Your task to perform on an android device: choose inbox layout in the gmail app Image 0: 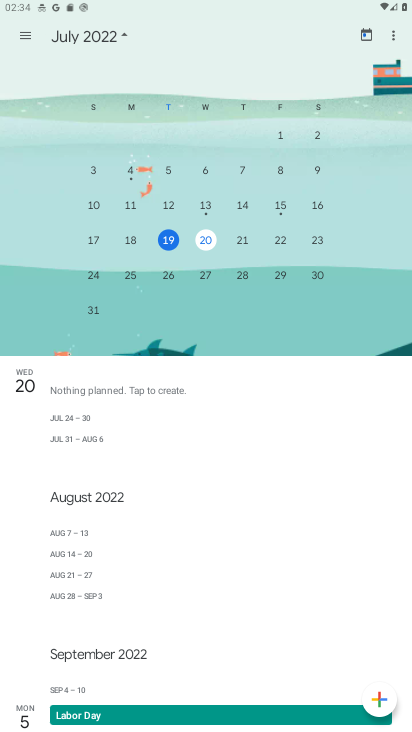
Step 0: press home button
Your task to perform on an android device: choose inbox layout in the gmail app Image 1: 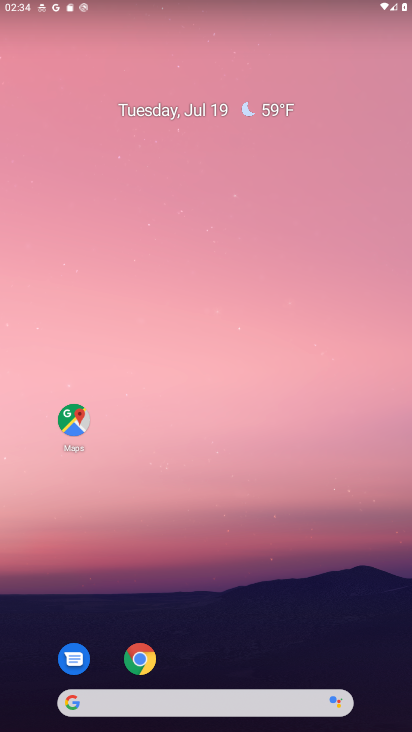
Step 1: drag from (185, 523) to (232, 219)
Your task to perform on an android device: choose inbox layout in the gmail app Image 2: 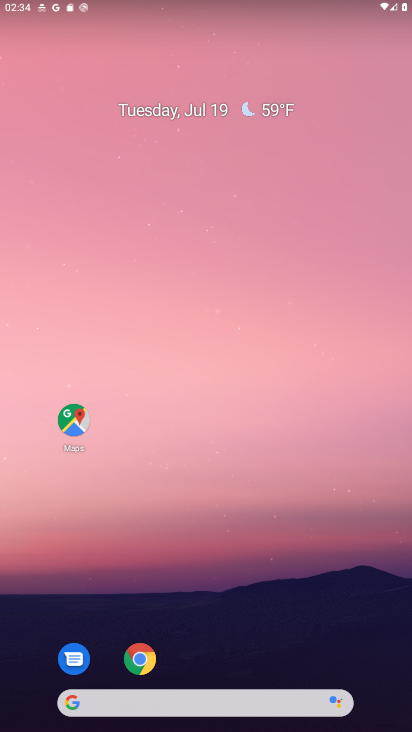
Step 2: drag from (263, 674) to (237, 332)
Your task to perform on an android device: choose inbox layout in the gmail app Image 3: 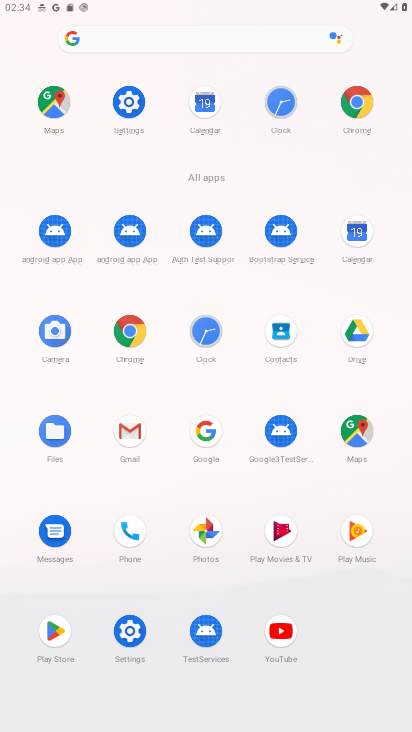
Step 3: click (131, 430)
Your task to perform on an android device: choose inbox layout in the gmail app Image 4: 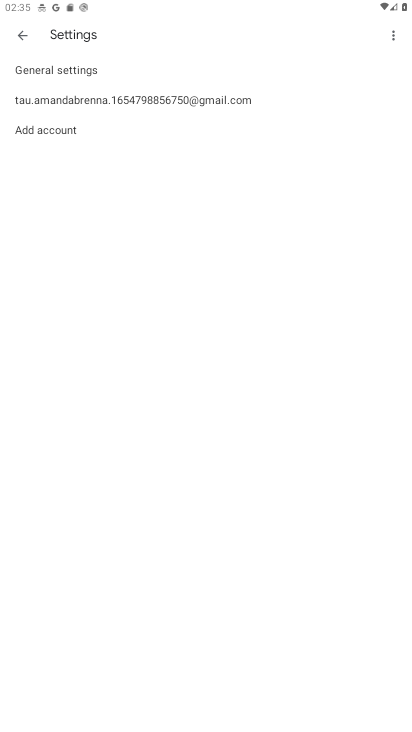
Step 4: click (67, 96)
Your task to perform on an android device: choose inbox layout in the gmail app Image 5: 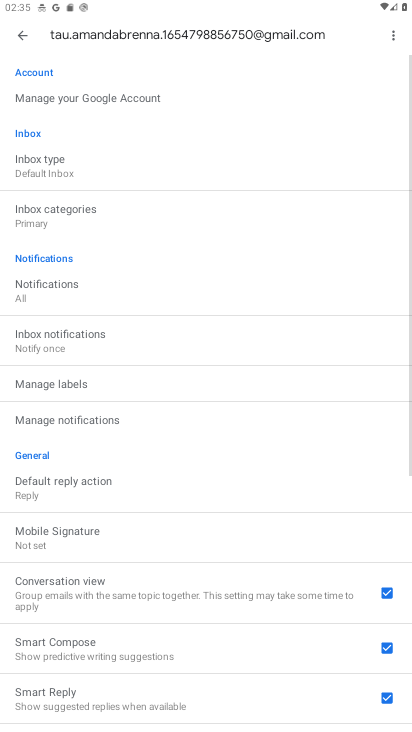
Step 5: click (49, 168)
Your task to perform on an android device: choose inbox layout in the gmail app Image 6: 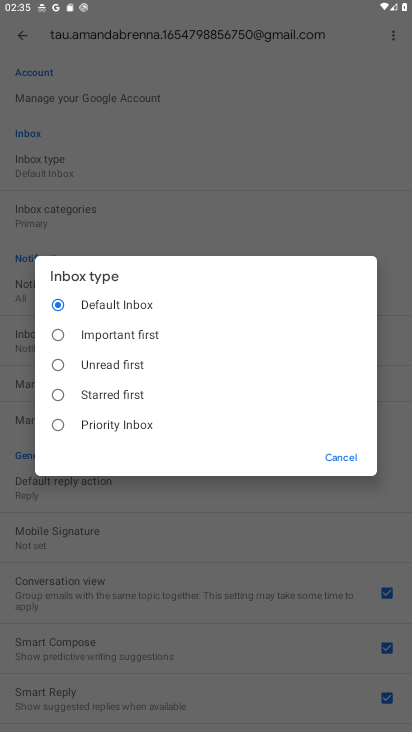
Step 6: click (102, 362)
Your task to perform on an android device: choose inbox layout in the gmail app Image 7: 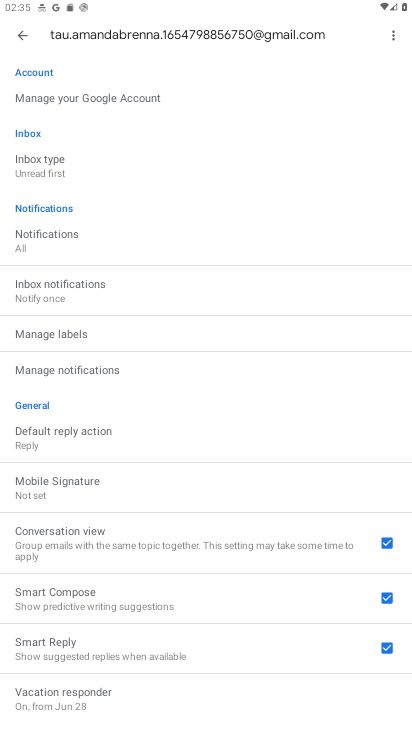
Step 7: task complete